Your task to perform on an android device: install app "PlayWell" Image 0: 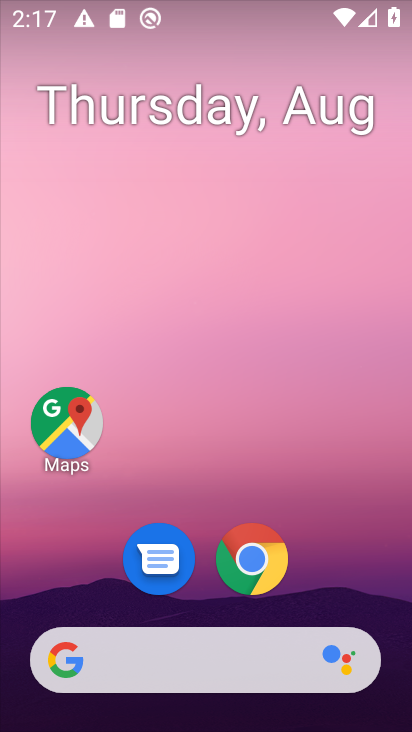
Step 0: drag from (65, 583) to (144, 71)
Your task to perform on an android device: install app "PlayWell" Image 1: 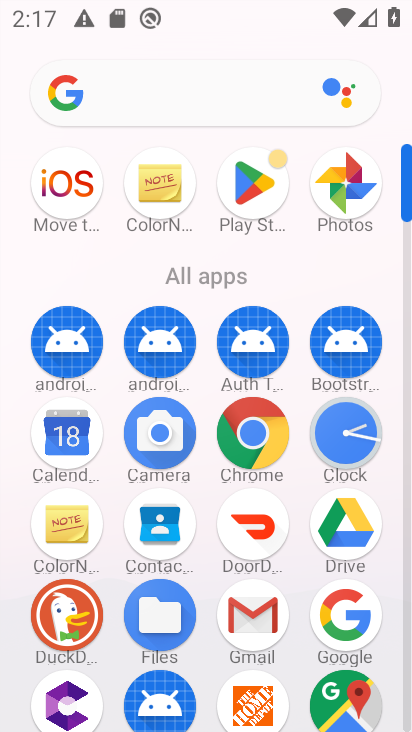
Step 1: click (251, 168)
Your task to perform on an android device: install app "PlayWell" Image 2: 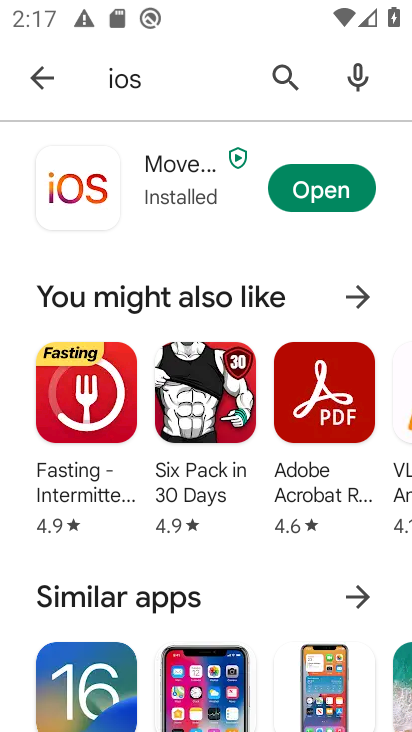
Step 2: click (281, 69)
Your task to perform on an android device: install app "PlayWell" Image 3: 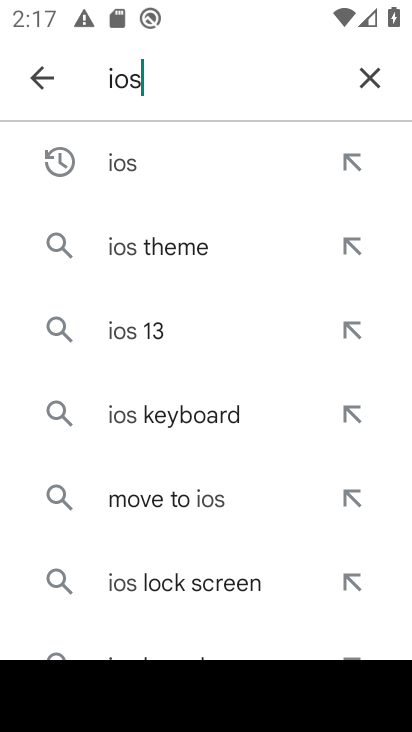
Step 3: click (375, 75)
Your task to perform on an android device: install app "PlayWell" Image 4: 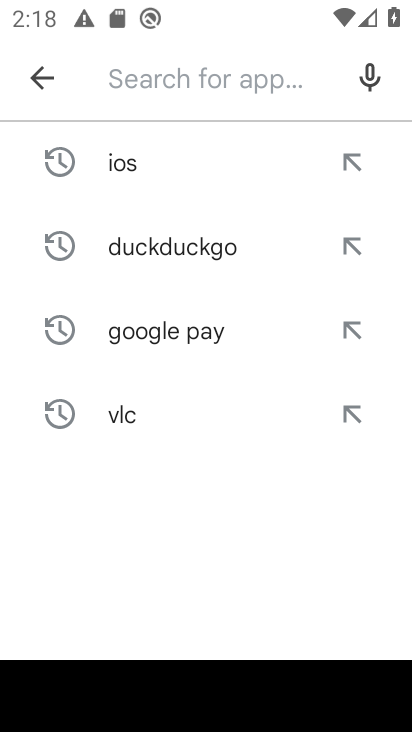
Step 4: click (113, 78)
Your task to perform on an android device: install app "PlayWell" Image 5: 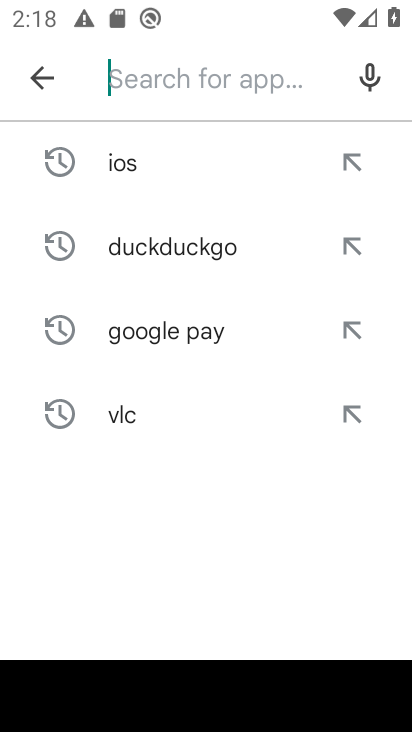
Step 5: type "play well"
Your task to perform on an android device: install app "PlayWell" Image 6: 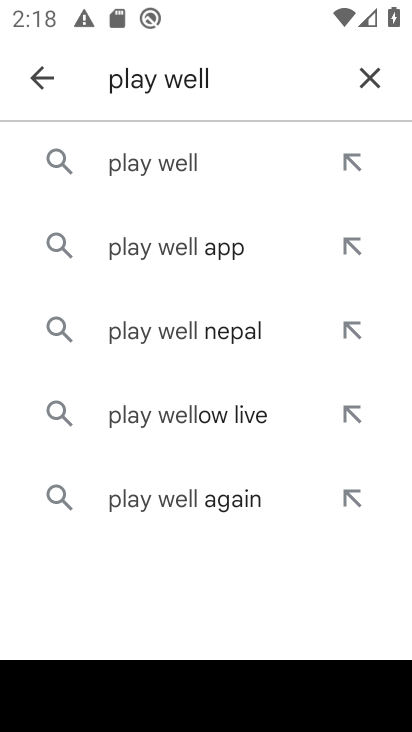
Step 6: click (154, 167)
Your task to perform on an android device: install app "PlayWell" Image 7: 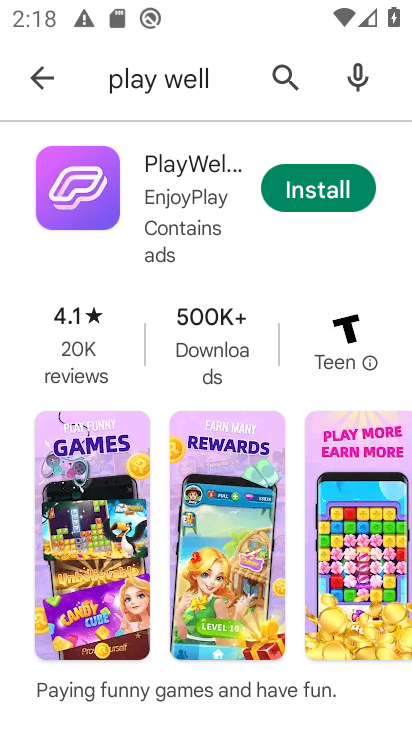
Step 7: click (293, 186)
Your task to perform on an android device: install app "PlayWell" Image 8: 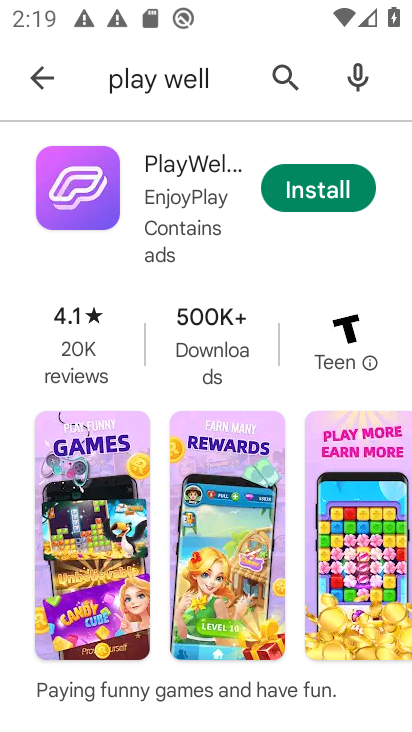
Step 8: click (305, 186)
Your task to perform on an android device: install app "PlayWell" Image 9: 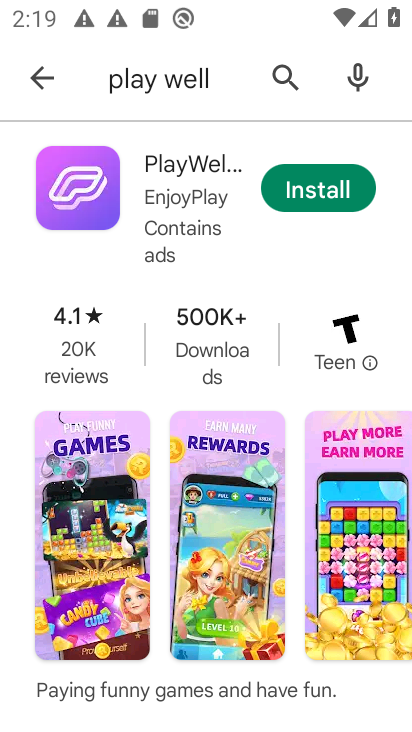
Step 9: click (293, 202)
Your task to perform on an android device: install app "PlayWell" Image 10: 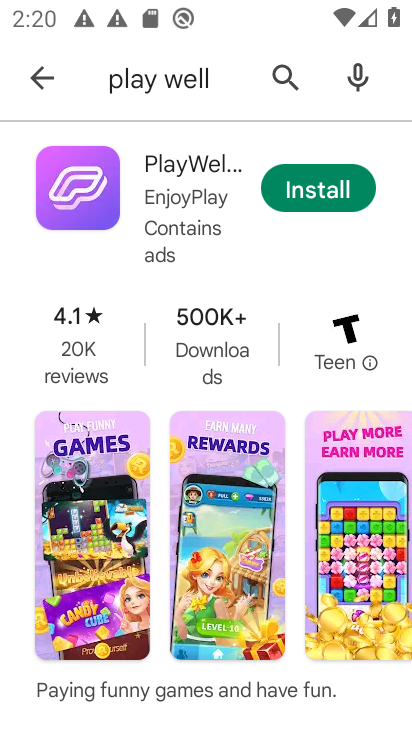
Step 10: click (312, 193)
Your task to perform on an android device: install app "PlayWell" Image 11: 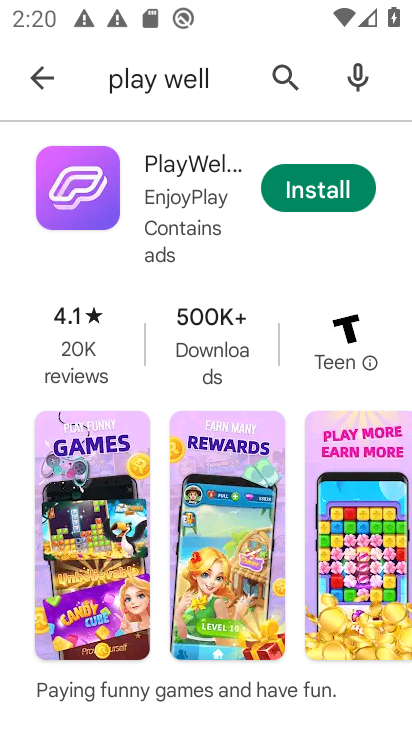
Step 11: click (308, 188)
Your task to perform on an android device: install app "PlayWell" Image 12: 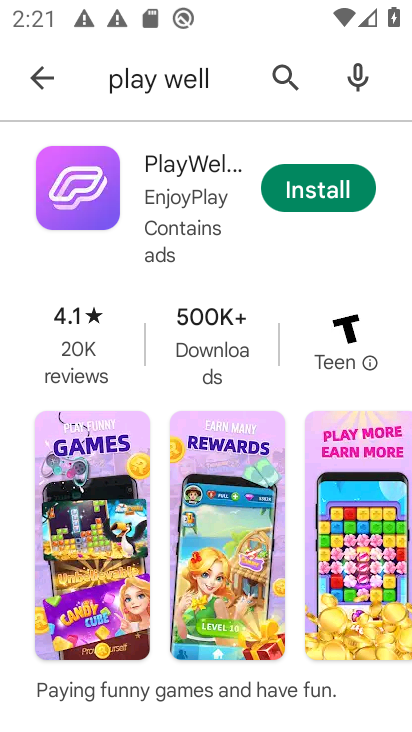
Step 12: click (320, 177)
Your task to perform on an android device: install app "PlayWell" Image 13: 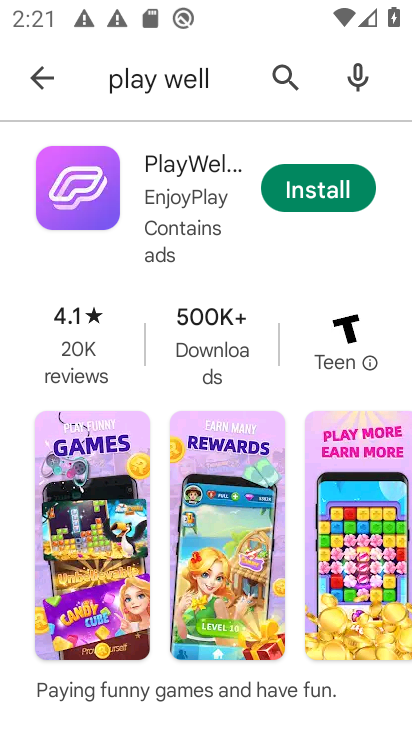
Step 13: task complete